Your task to perform on an android device: Go to Reddit.com Image 0: 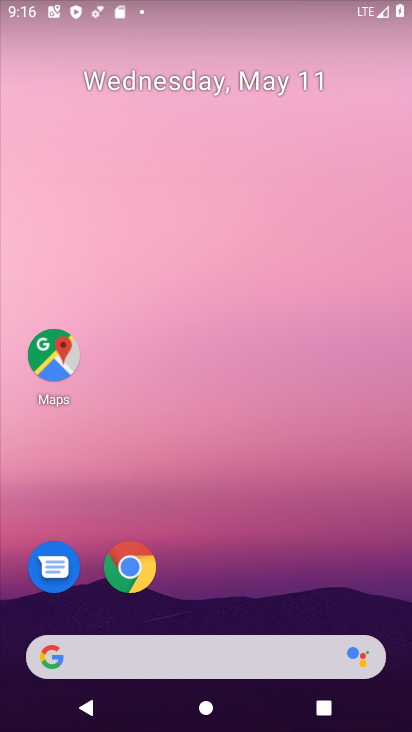
Step 0: drag from (274, 720) to (288, 198)
Your task to perform on an android device: Go to Reddit.com Image 1: 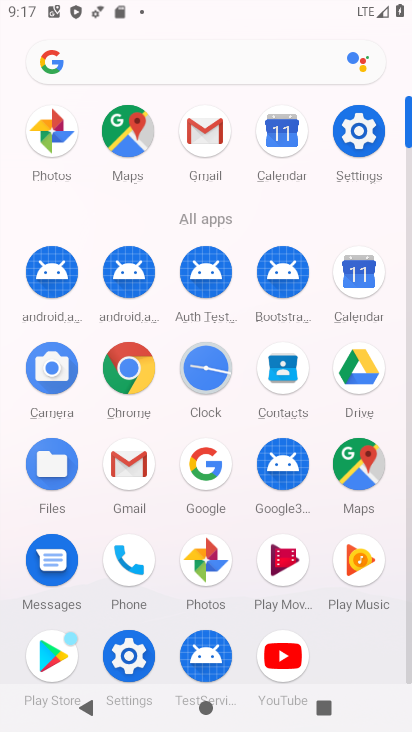
Step 1: click (143, 379)
Your task to perform on an android device: Go to Reddit.com Image 2: 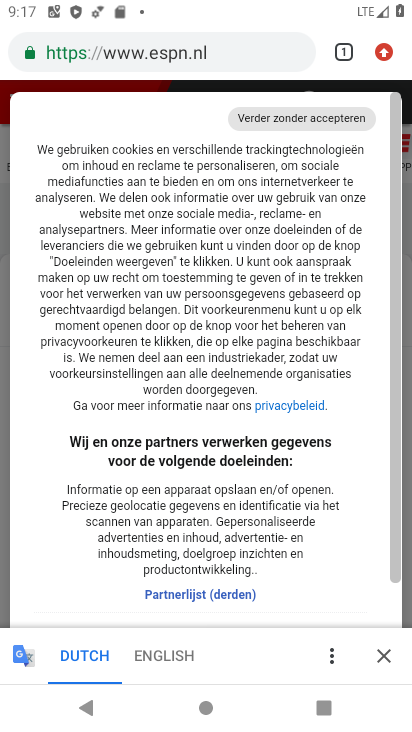
Step 2: click (379, 49)
Your task to perform on an android device: Go to Reddit.com Image 3: 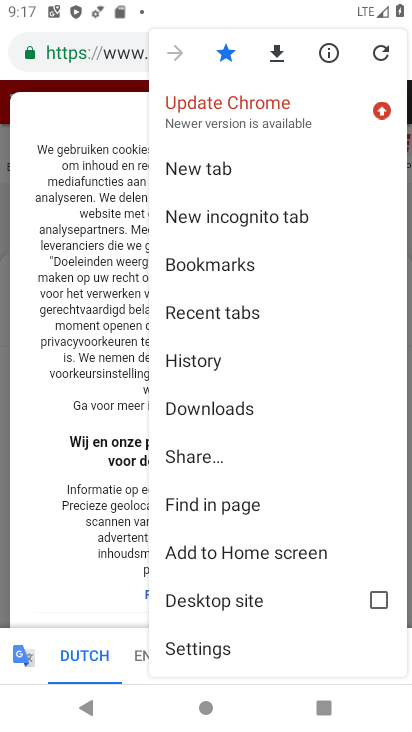
Step 3: click (209, 173)
Your task to perform on an android device: Go to Reddit.com Image 4: 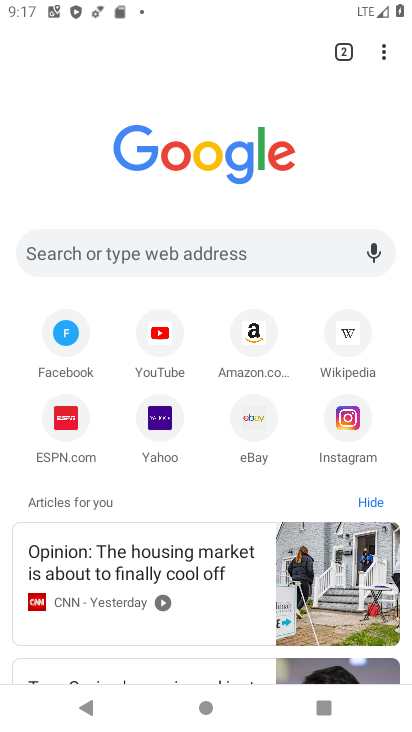
Step 4: type "reddit.com"
Your task to perform on an android device: Go to Reddit.com Image 5: 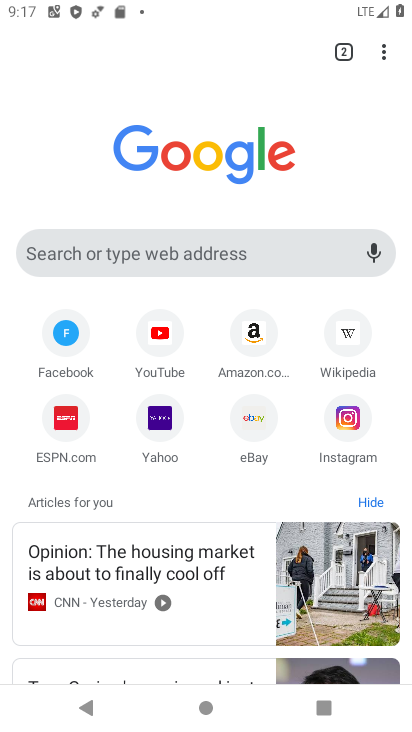
Step 5: click (83, 234)
Your task to perform on an android device: Go to Reddit.com Image 6: 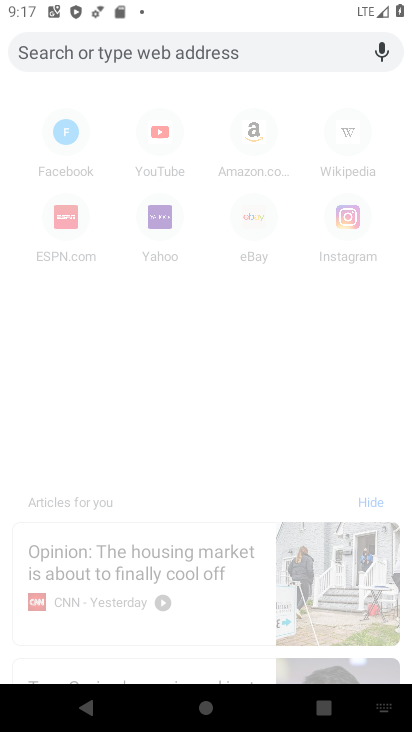
Step 6: type "reddit.com"
Your task to perform on an android device: Go to Reddit.com Image 7: 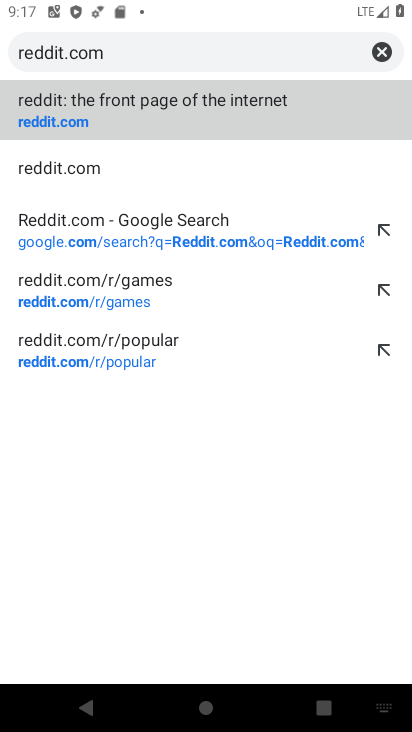
Step 7: click (288, 122)
Your task to perform on an android device: Go to Reddit.com Image 8: 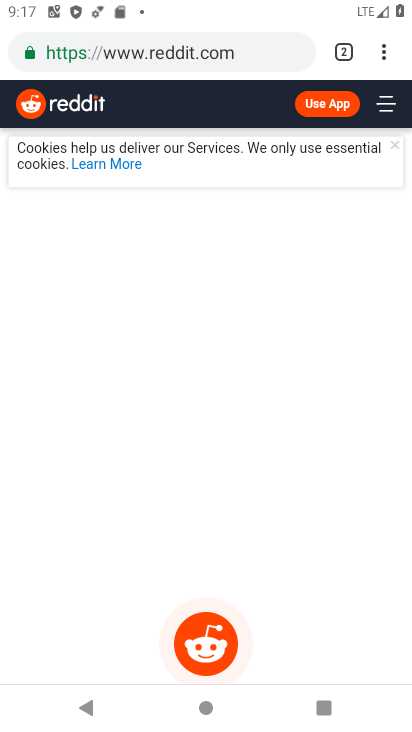
Step 8: task complete